Your task to perform on an android device: Search for hotels in Orlando Image 0: 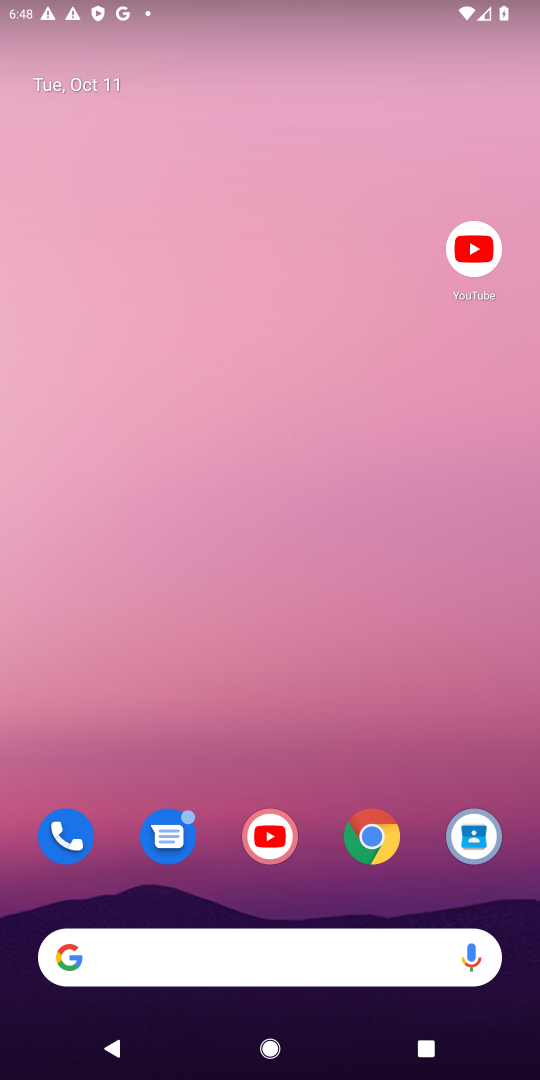
Step 0: click (361, 831)
Your task to perform on an android device: Search for hotels in Orlando Image 1: 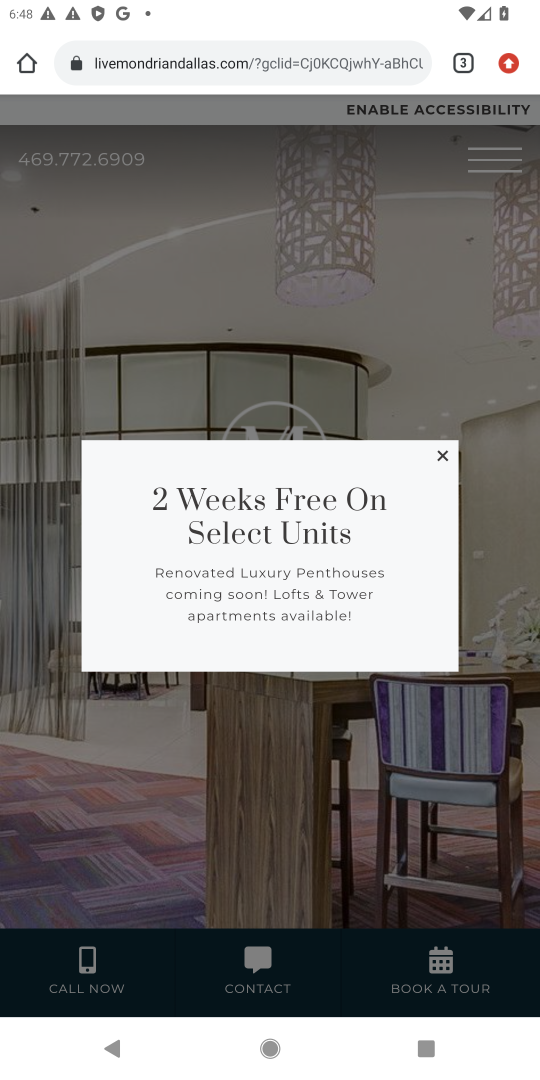
Step 1: click (293, 62)
Your task to perform on an android device: Search for hotels in Orlando Image 2: 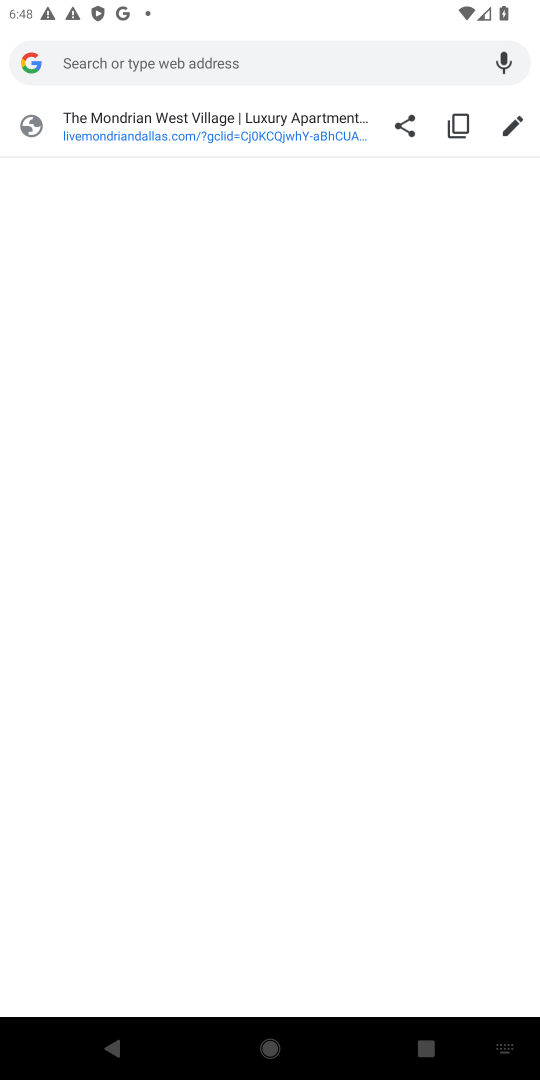
Step 2: type "hotels in Orlando"
Your task to perform on an android device: Search for hotels in Orlando Image 3: 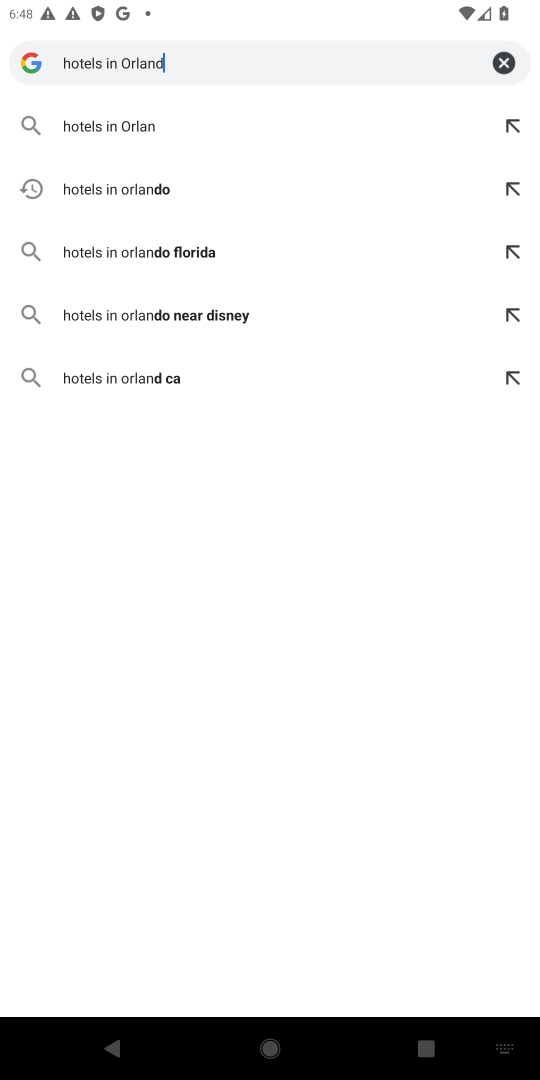
Step 3: press enter
Your task to perform on an android device: Search for hotels in Orlando Image 4: 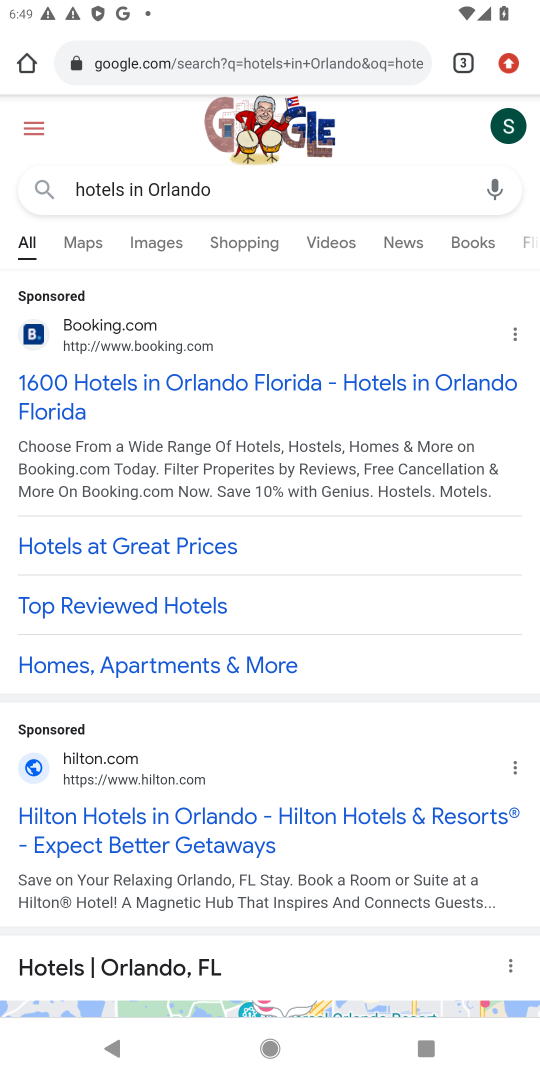
Step 4: drag from (167, 897) to (535, 18)
Your task to perform on an android device: Search for hotels in Orlando Image 5: 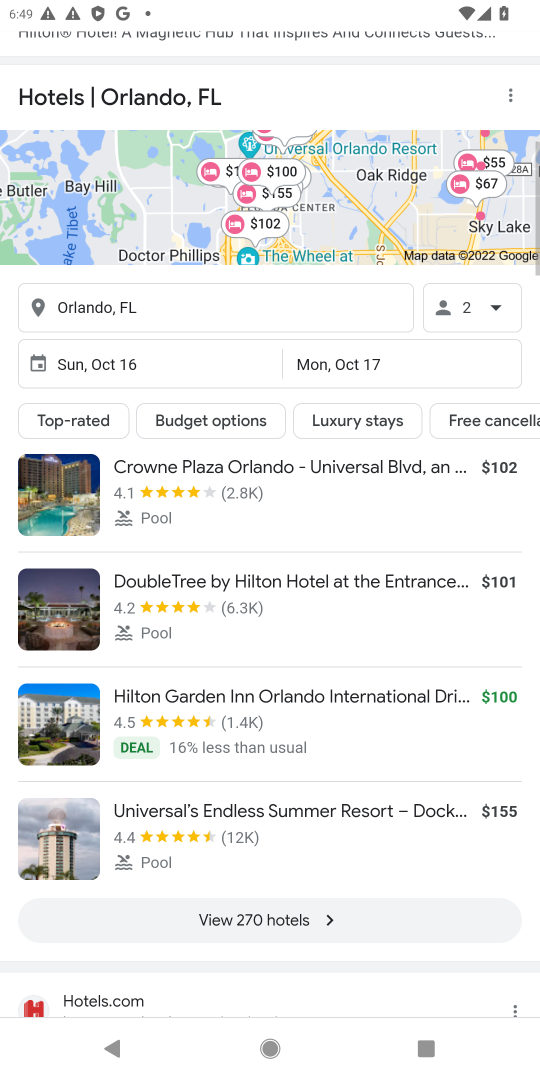
Step 5: drag from (250, 855) to (437, 136)
Your task to perform on an android device: Search for hotels in Orlando Image 6: 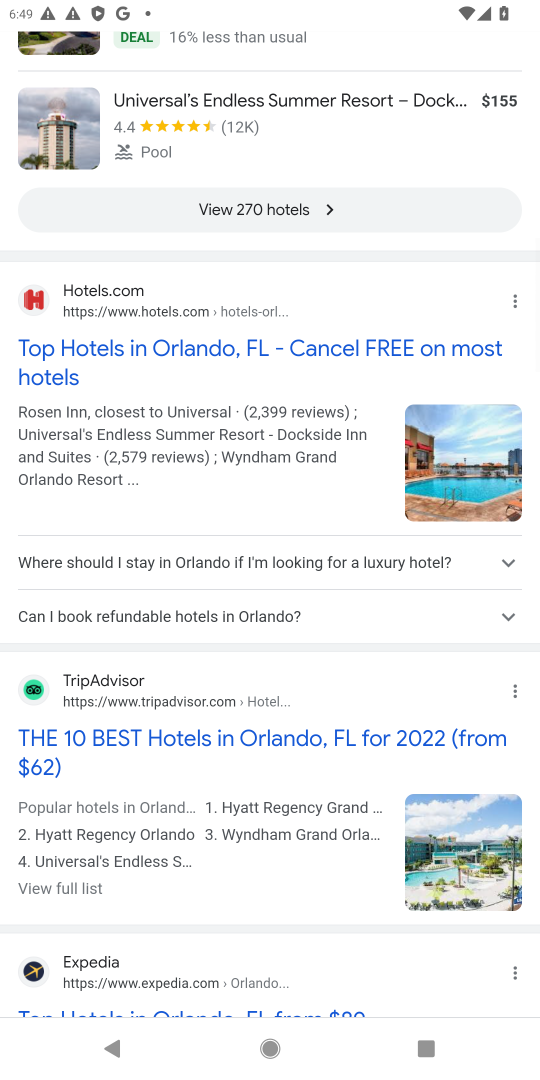
Step 6: click (271, 201)
Your task to perform on an android device: Search for hotels in Orlando Image 7: 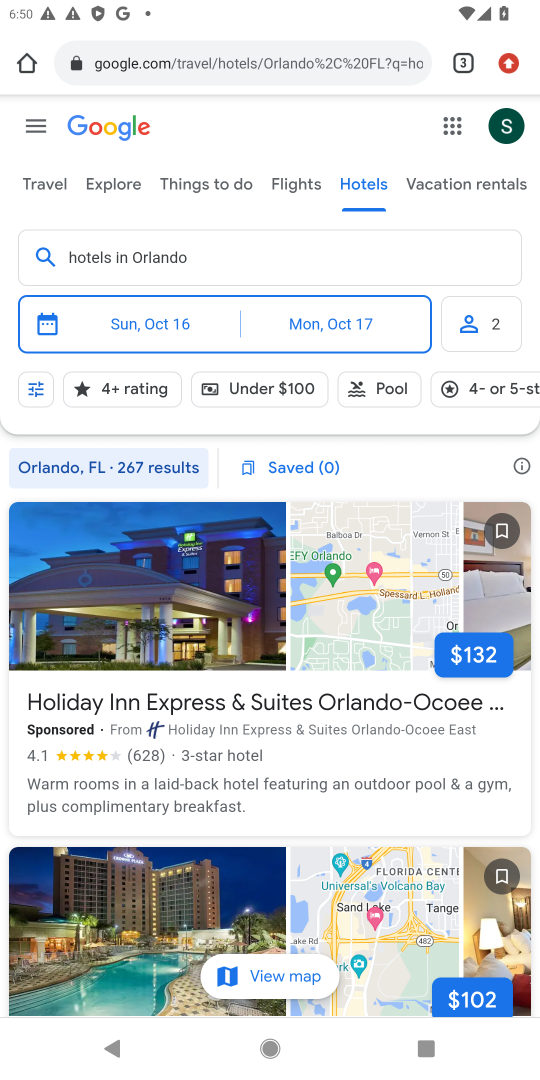
Step 7: task complete